Your task to perform on an android device: open a bookmark in the chrome app Image 0: 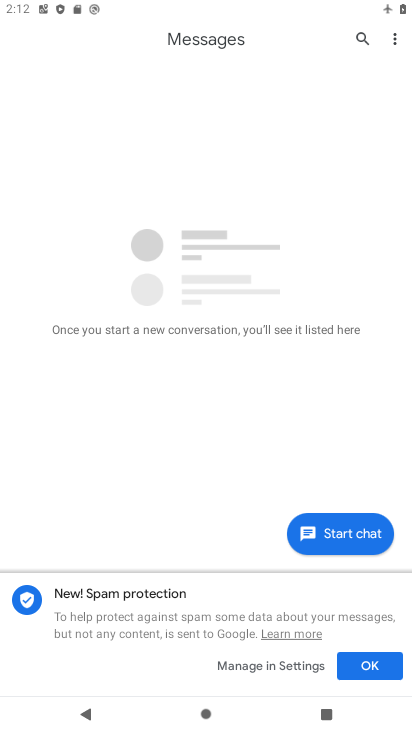
Step 0: press home button
Your task to perform on an android device: open a bookmark in the chrome app Image 1: 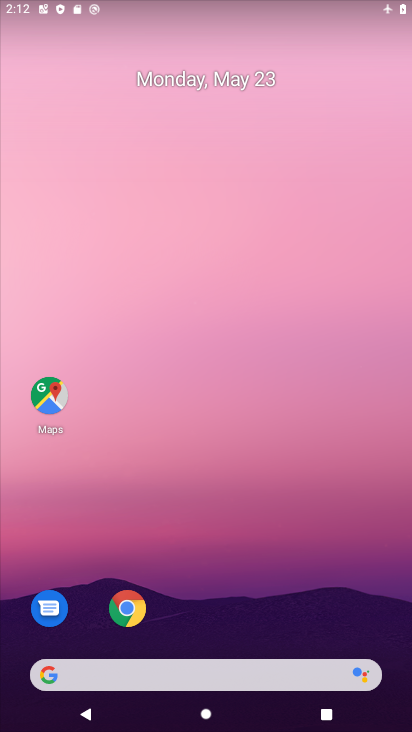
Step 1: drag from (217, 654) to (196, 71)
Your task to perform on an android device: open a bookmark in the chrome app Image 2: 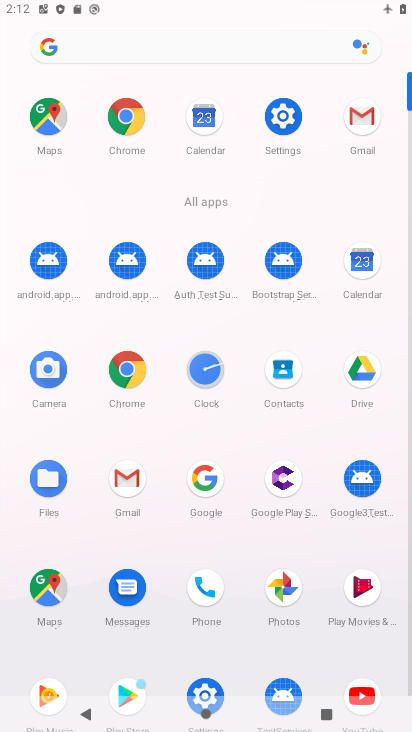
Step 2: click (113, 368)
Your task to perform on an android device: open a bookmark in the chrome app Image 3: 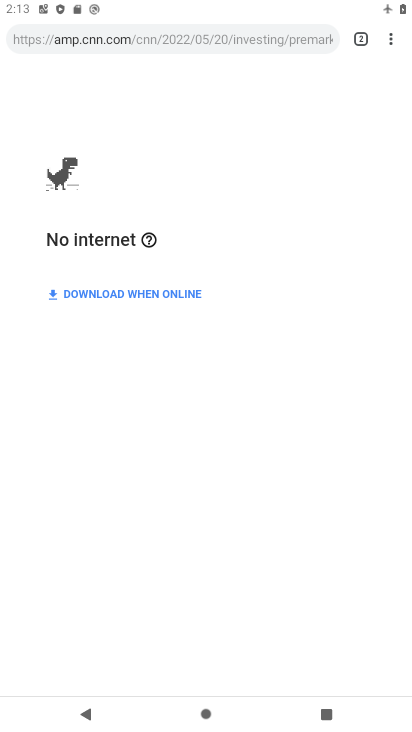
Step 3: task complete